Your task to perform on an android device: Go to accessibility settings Image 0: 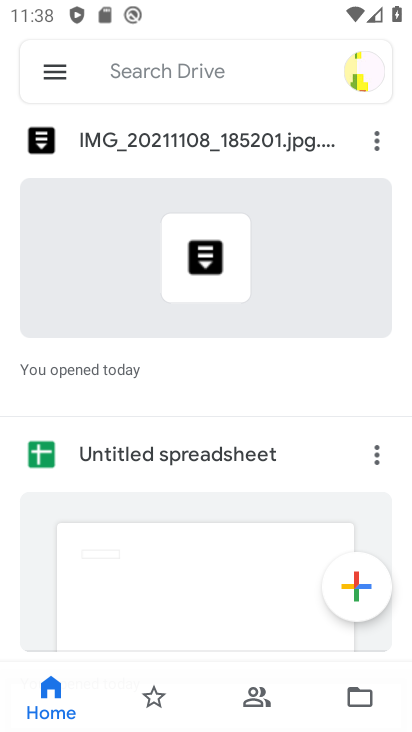
Step 0: press home button
Your task to perform on an android device: Go to accessibility settings Image 1: 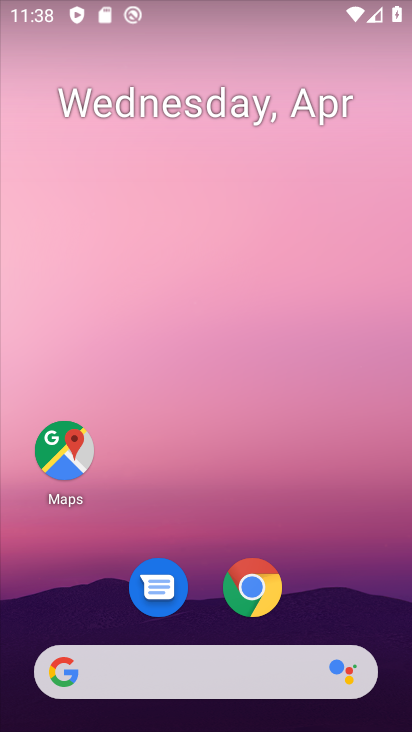
Step 1: drag from (355, 544) to (156, 129)
Your task to perform on an android device: Go to accessibility settings Image 2: 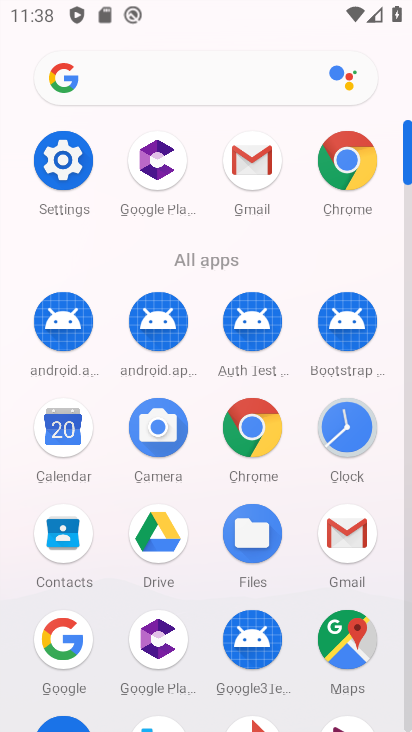
Step 2: click (80, 171)
Your task to perform on an android device: Go to accessibility settings Image 3: 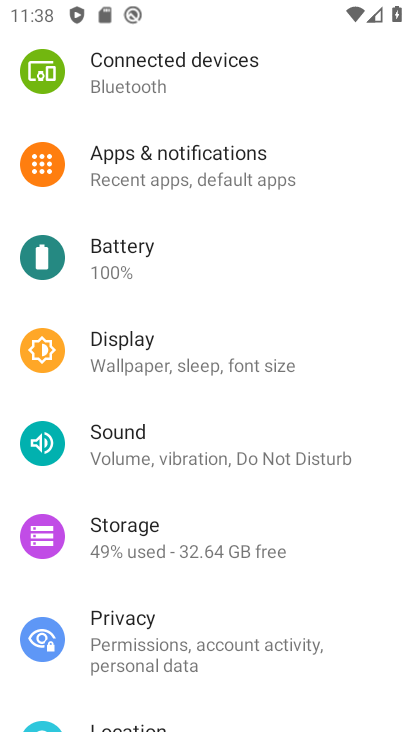
Step 3: drag from (279, 586) to (277, 178)
Your task to perform on an android device: Go to accessibility settings Image 4: 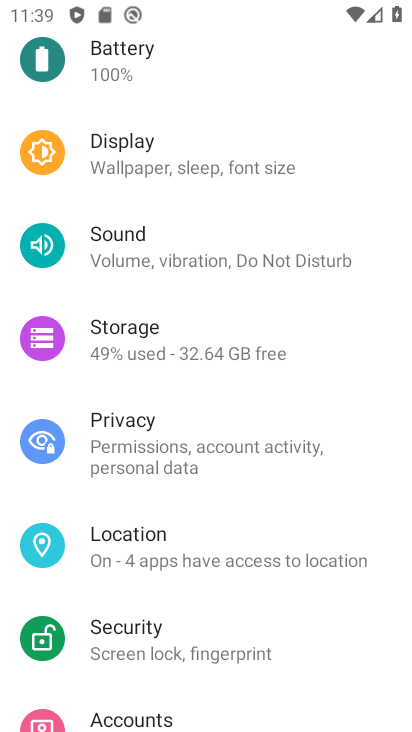
Step 4: drag from (217, 586) to (273, 180)
Your task to perform on an android device: Go to accessibility settings Image 5: 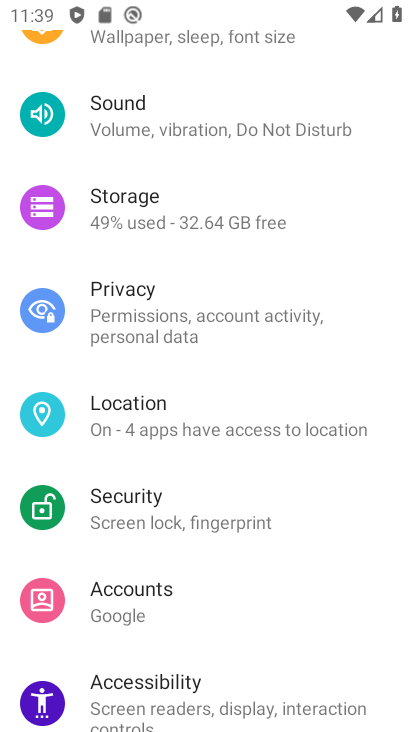
Step 5: click (221, 682)
Your task to perform on an android device: Go to accessibility settings Image 6: 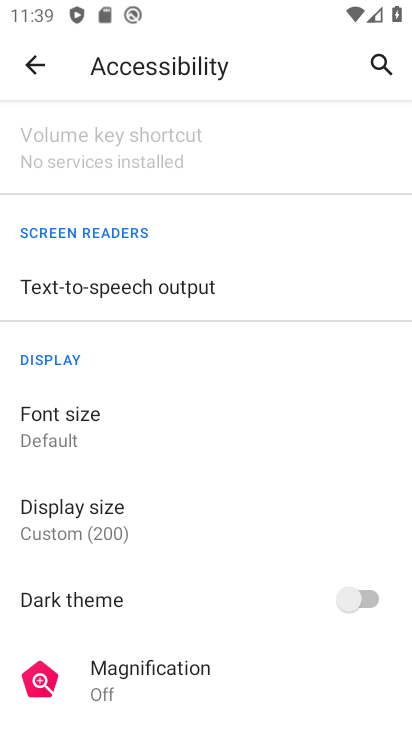
Step 6: task complete